Your task to perform on an android device: Go to Google Image 0: 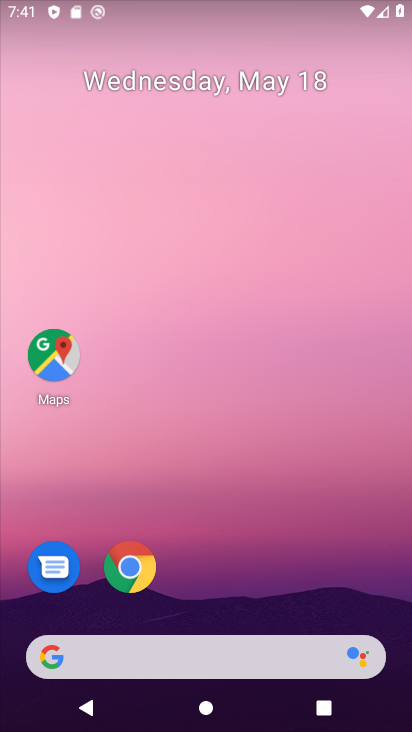
Step 0: click (200, 643)
Your task to perform on an android device: Go to Google Image 1: 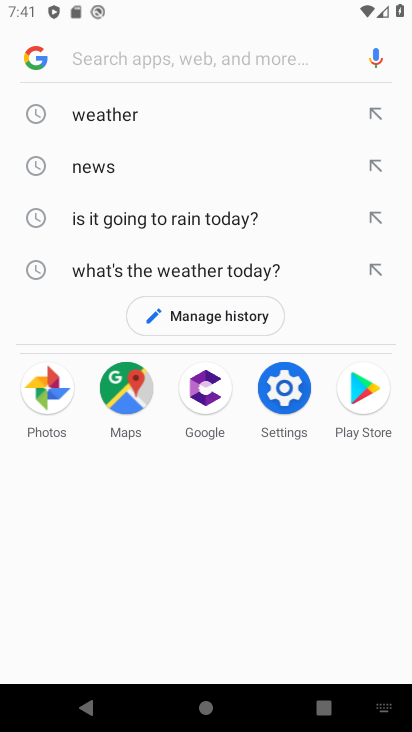
Step 1: task complete